Your task to perform on an android device: Go to settings Image 0: 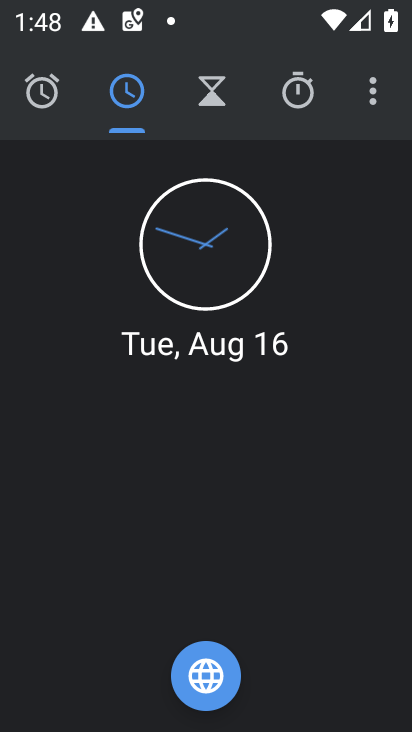
Step 0: press home button
Your task to perform on an android device: Go to settings Image 1: 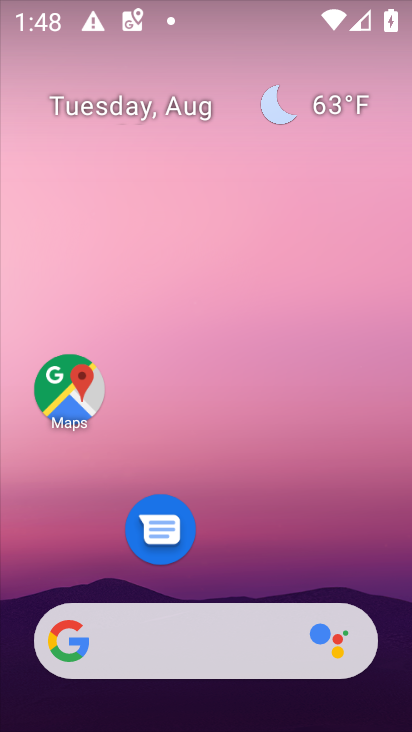
Step 1: drag from (295, 570) to (306, 165)
Your task to perform on an android device: Go to settings Image 2: 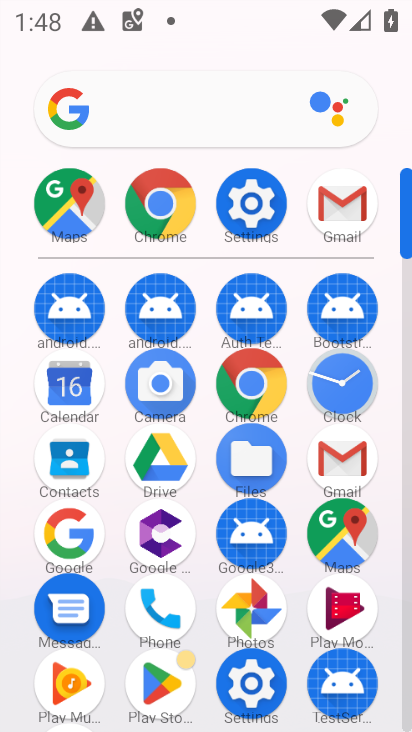
Step 2: click (268, 234)
Your task to perform on an android device: Go to settings Image 3: 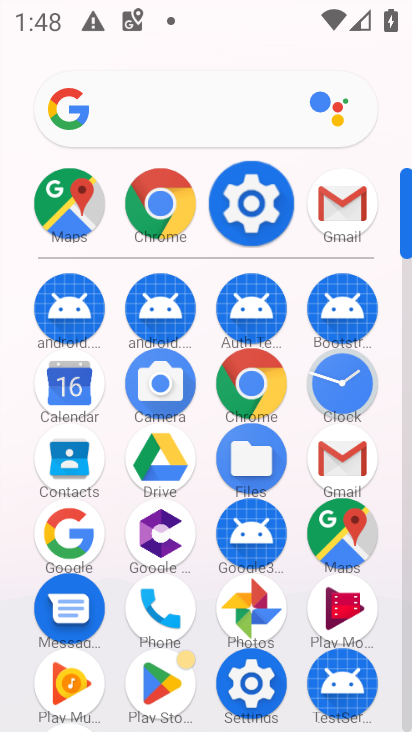
Step 3: click (268, 234)
Your task to perform on an android device: Go to settings Image 4: 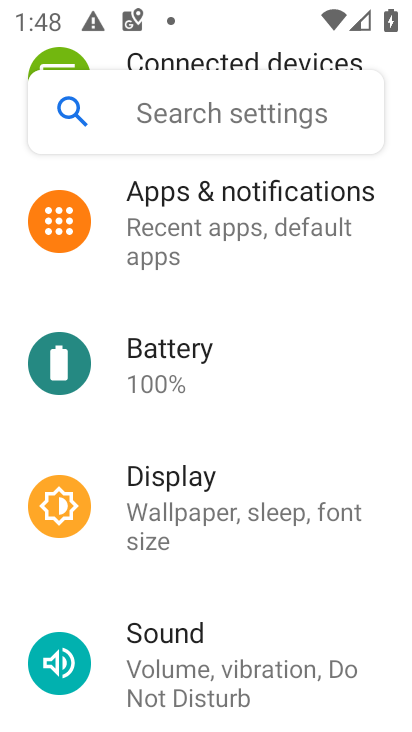
Step 4: task complete